Your task to perform on an android device: turn on showing notifications on the lock screen Image 0: 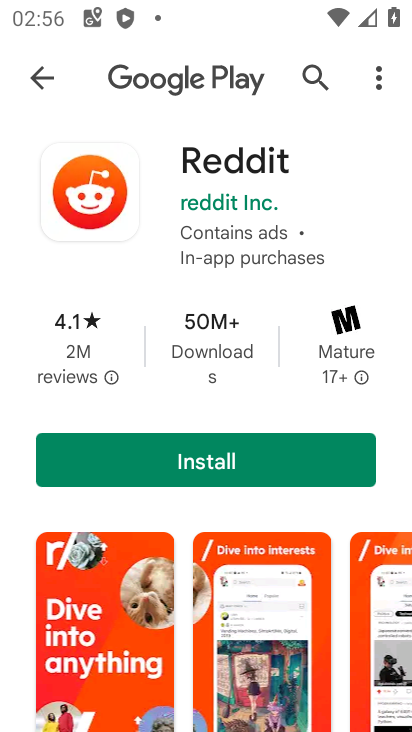
Step 0: press home button
Your task to perform on an android device: turn on showing notifications on the lock screen Image 1: 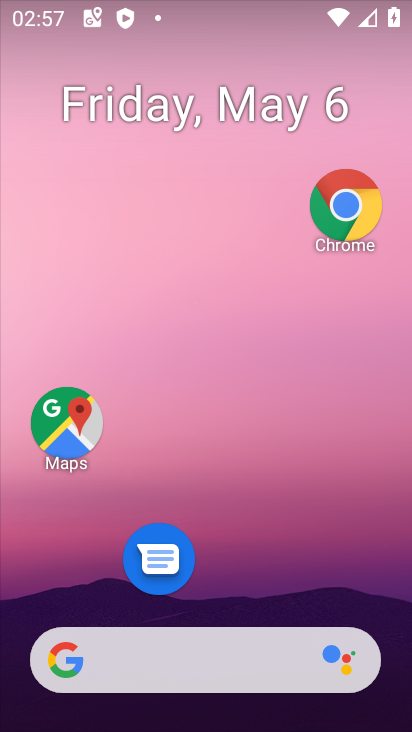
Step 1: drag from (184, 650) to (408, 11)
Your task to perform on an android device: turn on showing notifications on the lock screen Image 2: 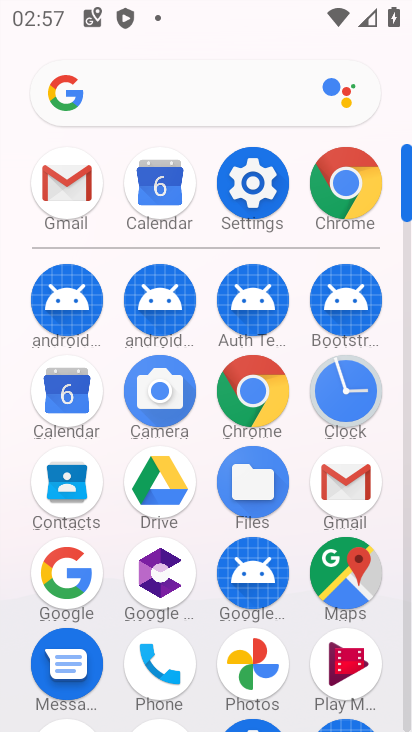
Step 2: click (244, 190)
Your task to perform on an android device: turn on showing notifications on the lock screen Image 3: 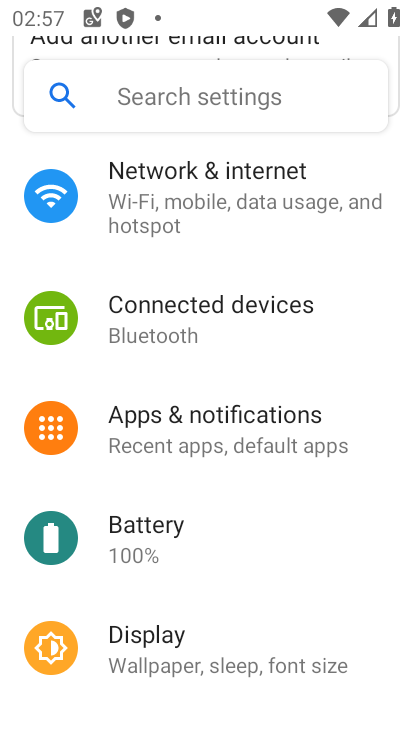
Step 3: click (236, 413)
Your task to perform on an android device: turn on showing notifications on the lock screen Image 4: 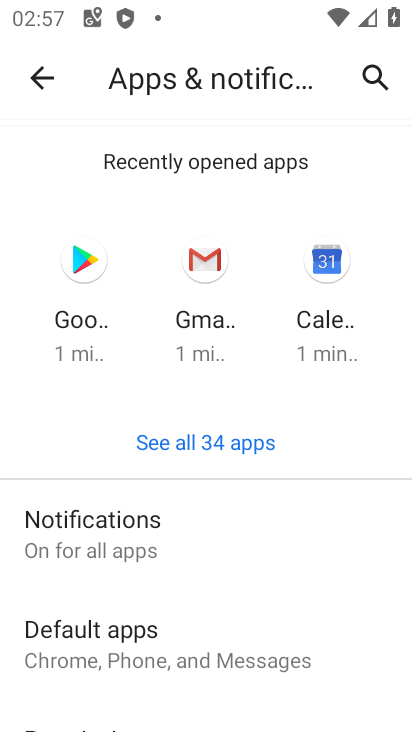
Step 4: click (141, 535)
Your task to perform on an android device: turn on showing notifications on the lock screen Image 5: 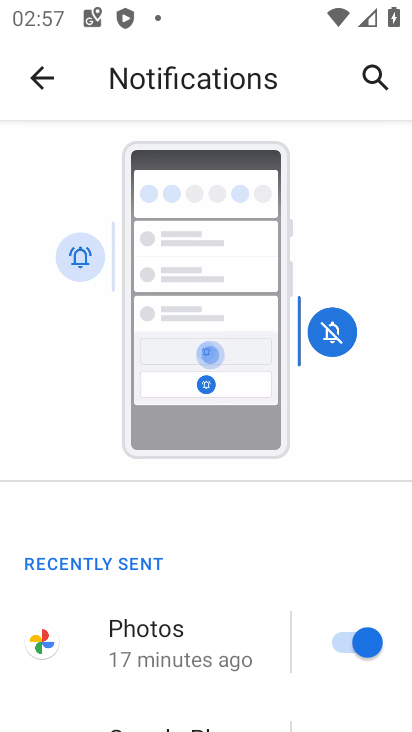
Step 5: drag from (193, 609) to (408, 310)
Your task to perform on an android device: turn on showing notifications on the lock screen Image 6: 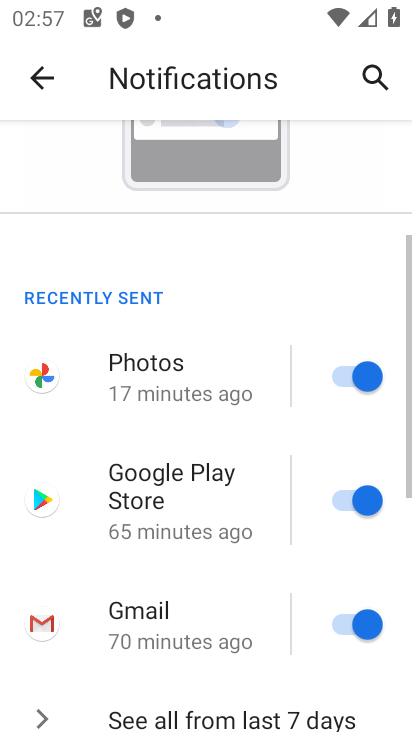
Step 6: drag from (191, 674) to (376, 122)
Your task to perform on an android device: turn on showing notifications on the lock screen Image 7: 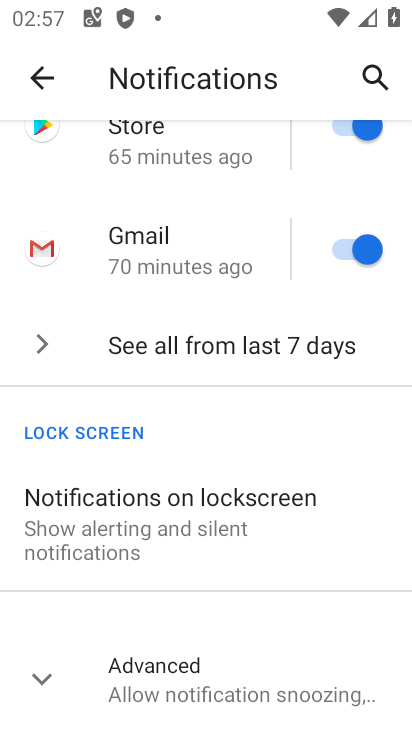
Step 7: click (188, 516)
Your task to perform on an android device: turn on showing notifications on the lock screen Image 8: 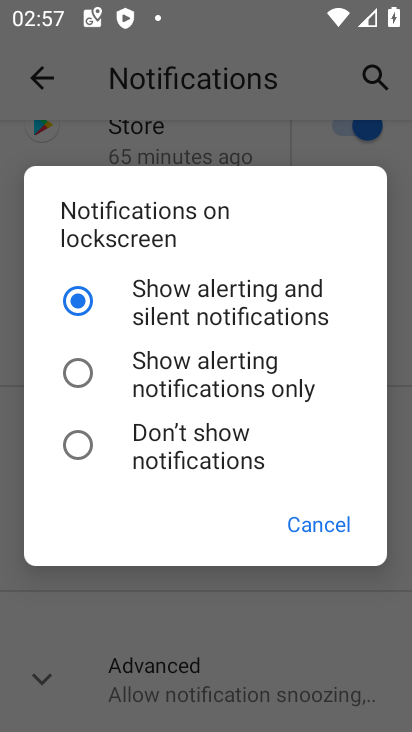
Step 8: task complete